Your task to perform on an android device: turn smart compose on in the gmail app Image 0: 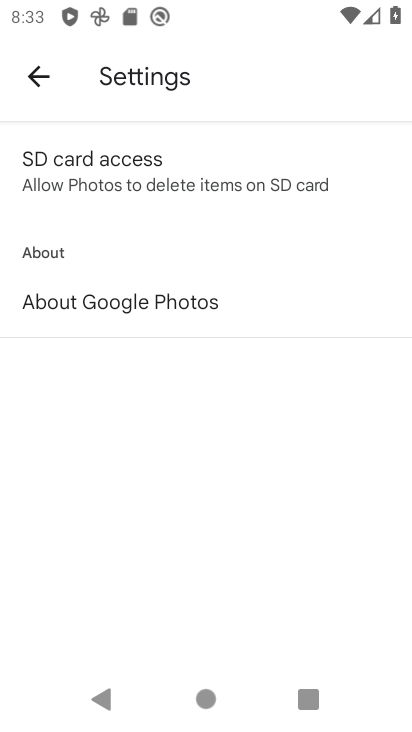
Step 0: press home button
Your task to perform on an android device: turn smart compose on in the gmail app Image 1: 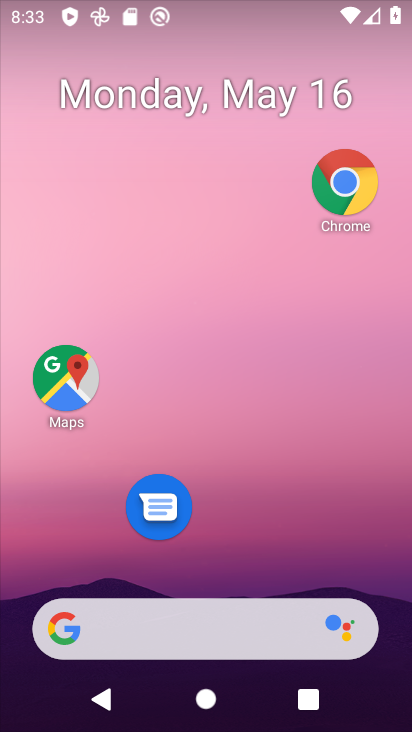
Step 1: drag from (268, 557) to (303, 111)
Your task to perform on an android device: turn smart compose on in the gmail app Image 2: 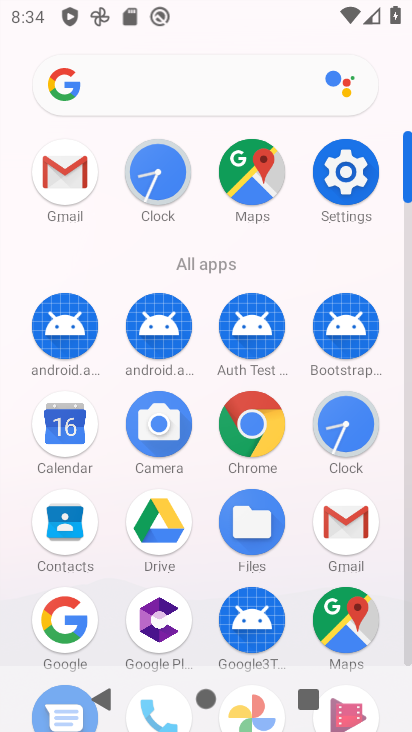
Step 2: click (61, 172)
Your task to perform on an android device: turn smart compose on in the gmail app Image 3: 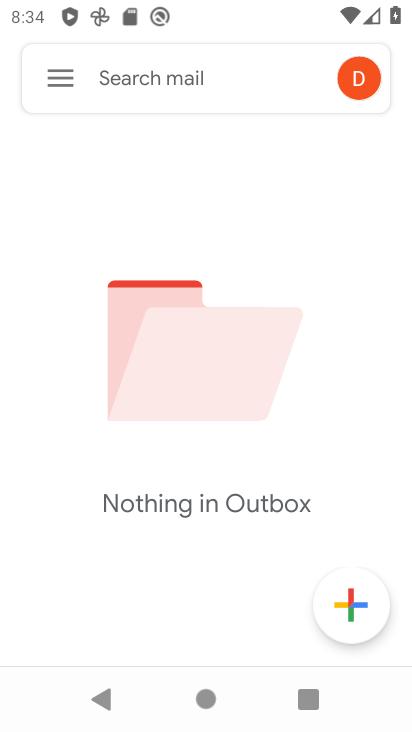
Step 3: click (60, 80)
Your task to perform on an android device: turn smart compose on in the gmail app Image 4: 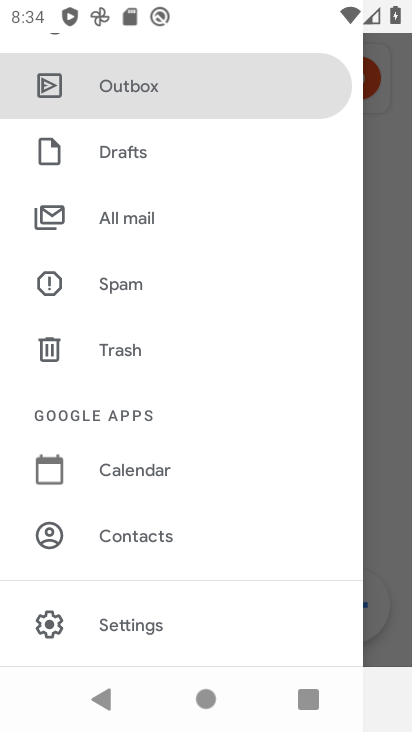
Step 4: click (122, 630)
Your task to perform on an android device: turn smart compose on in the gmail app Image 5: 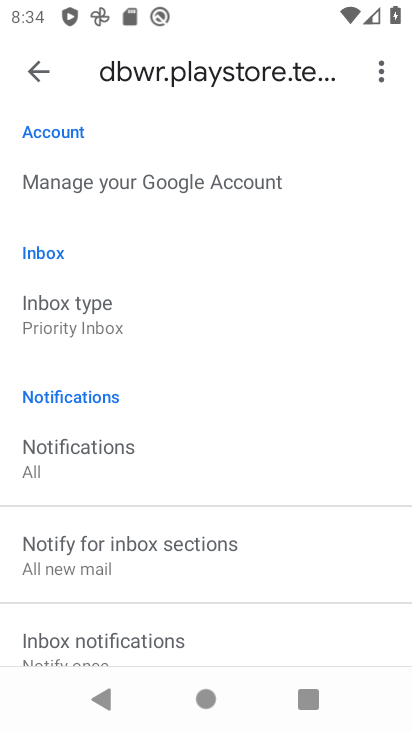
Step 5: task complete